Your task to perform on an android device: toggle notification dots Image 0: 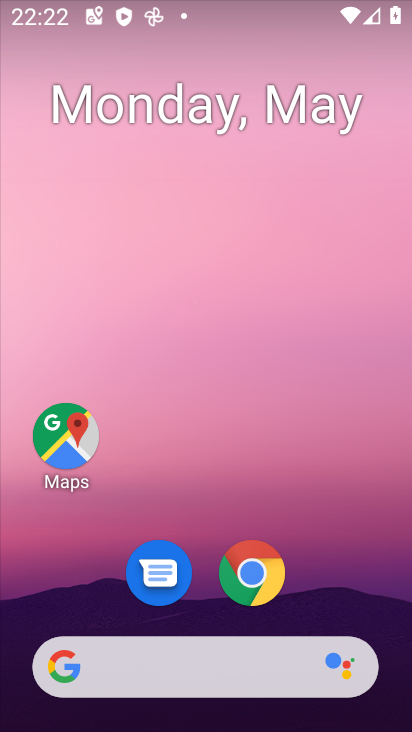
Step 0: drag from (379, 568) to (233, 84)
Your task to perform on an android device: toggle notification dots Image 1: 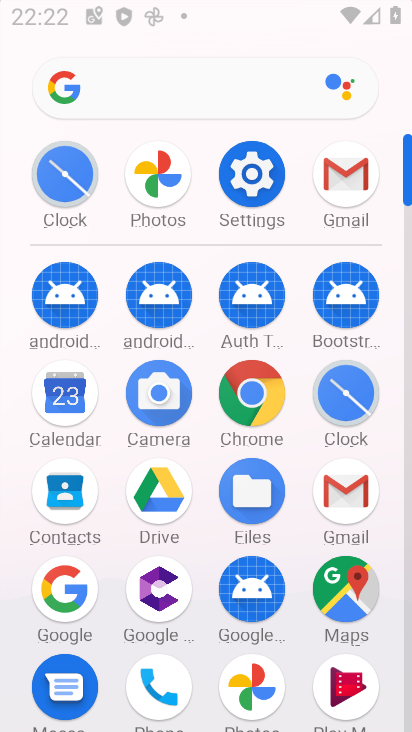
Step 1: click (276, 221)
Your task to perform on an android device: toggle notification dots Image 2: 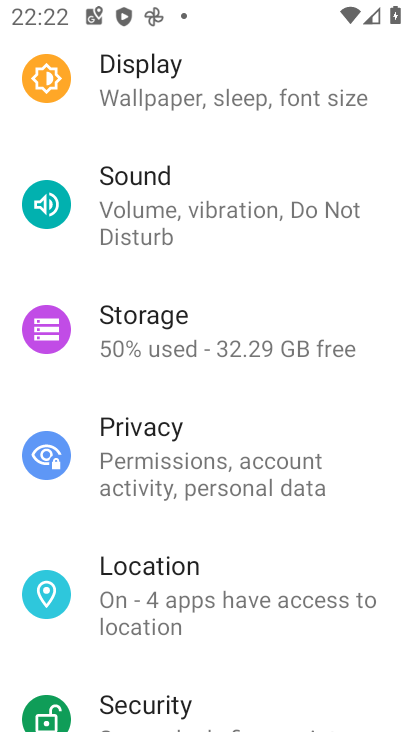
Step 2: task complete